Your task to perform on an android device: change the clock display to show seconds Image 0: 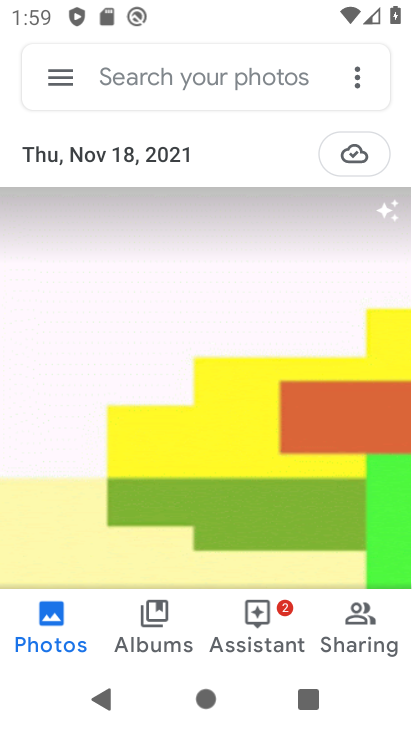
Step 0: press home button
Your task to perform on an android device: change the clock display to show seconds Image 1: 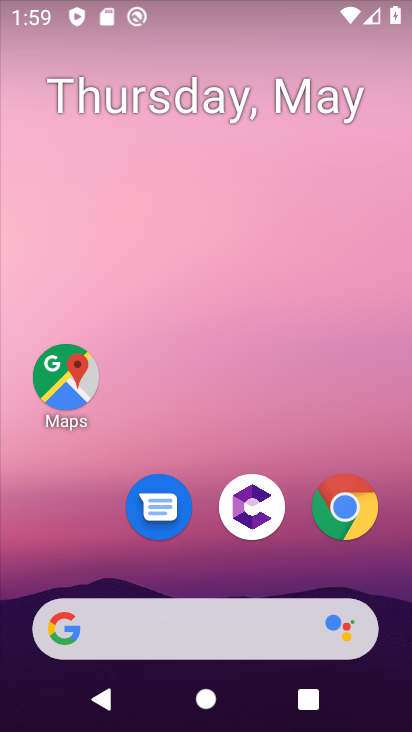
Step 1: drag from (305, 453) to (252, 21)
Your task to perform on an android device: change the clock display to show seconds Image 2: 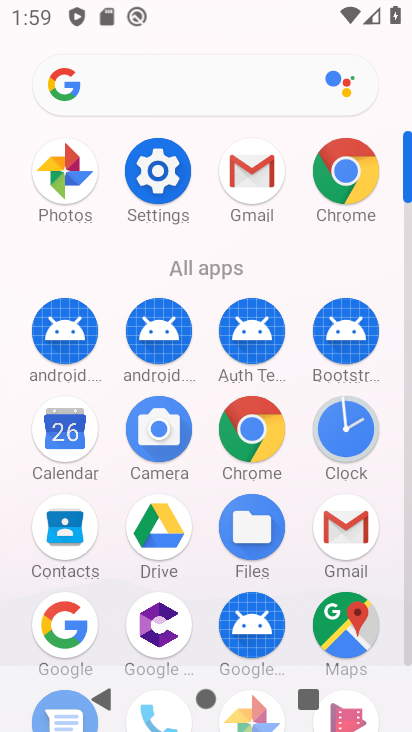
Step 2: click (358, 439)
Your task to perform on an android device: change the clock display to show seconds Image 3: 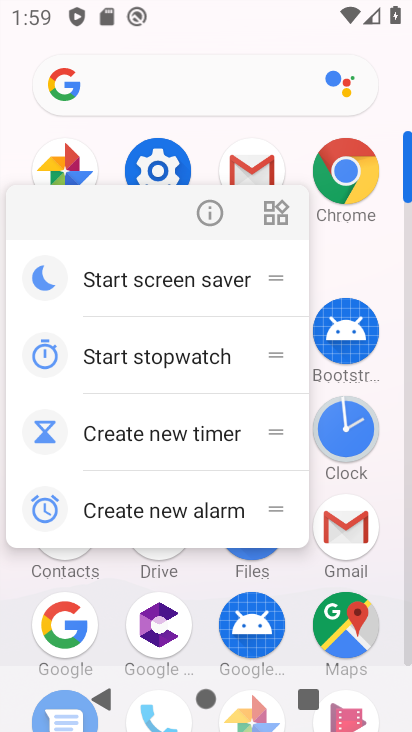
Step 3: click (333, 430)
Your task to perform on an android device: change the clock display to show seconds Image 4: 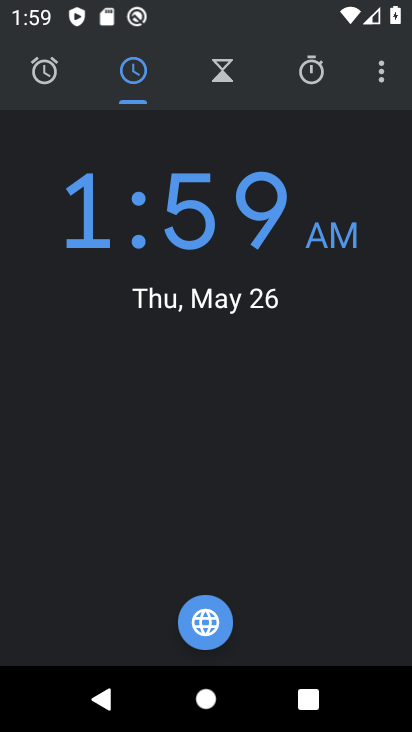
Step 4: click (380, 78)
Your task to perform on an android device: change the clock display to show seconds Image 5: 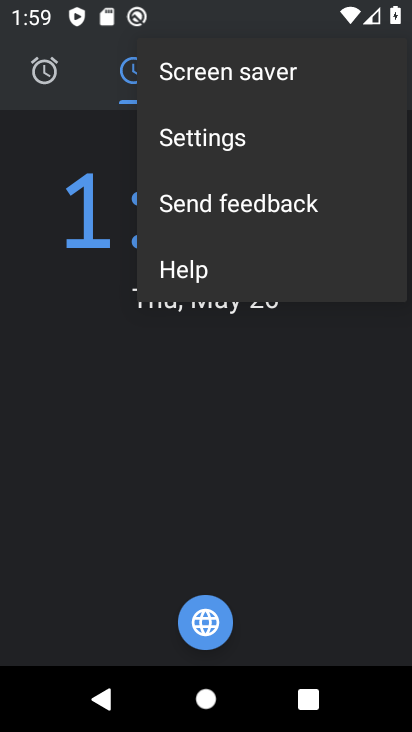
Step 5: click (226, 152)
Your task to perform on an android device: change the clock display to show seconds Image 6: 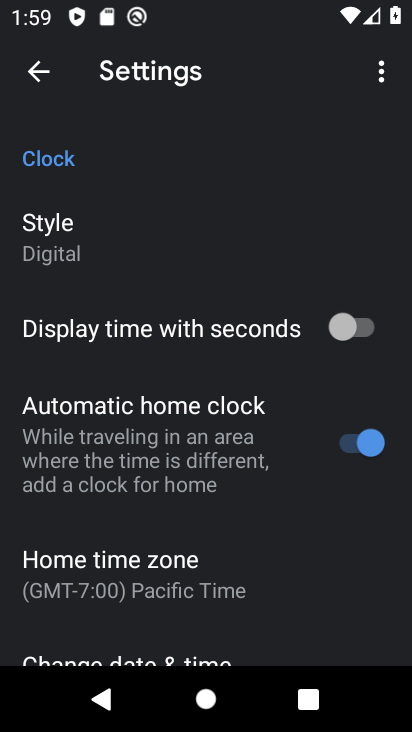
Step 6: click (342, 323)
Your task to perform on an android device: change the clock display to show seconds Image 7: 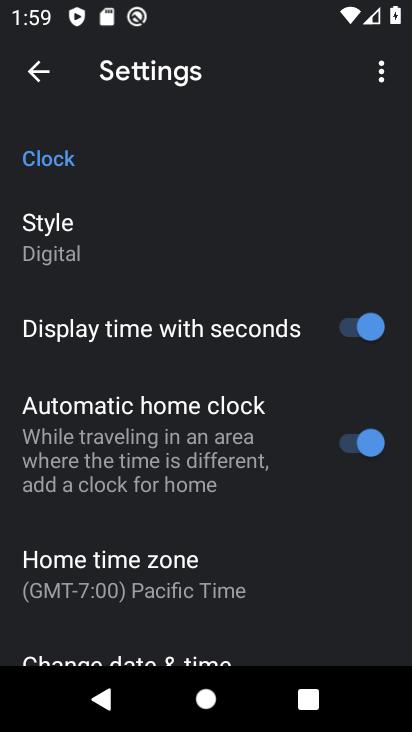
Step 7: task complete